Your task to perform on an android device: change keyboard looks Image 0: 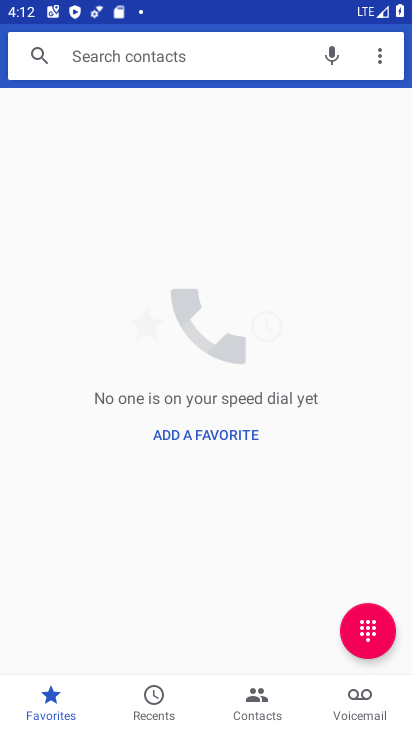
Step 0: press home button
Your task to perform on an android device: change keyboard looks Image 1: 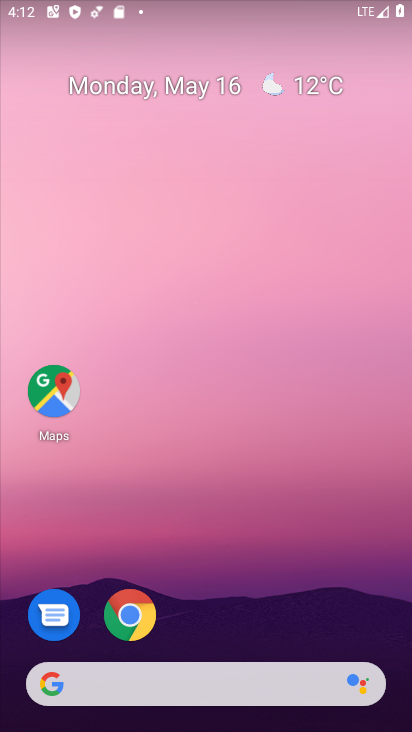
Step 1: drag from (188, 687) to (187, 340)
Your task to perform on an android device: change keyboard looks Image 2: 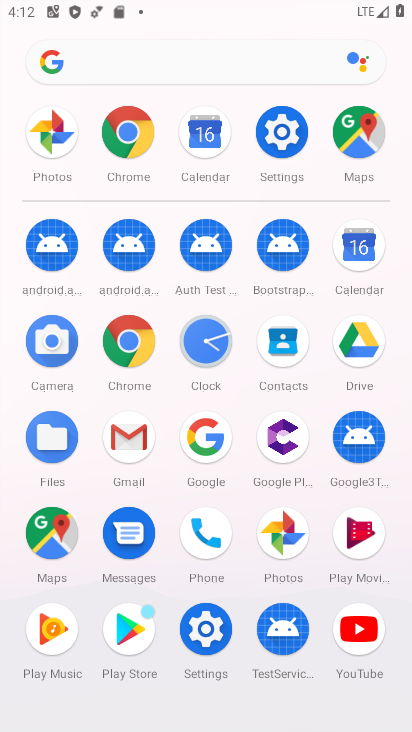
Step 2: click (293, 132)
Your task to perform on an android device: change keyboard looks Image 3: 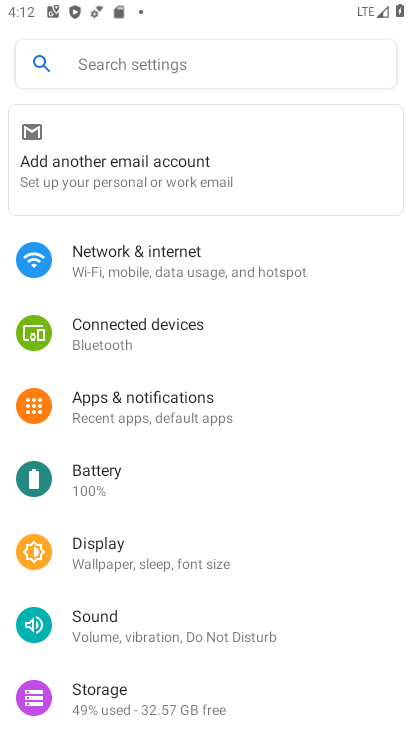
Step 3: drag from (129, 644) to (115, 326)
Your task to perform on an android device: change keyboard looks Image 4: 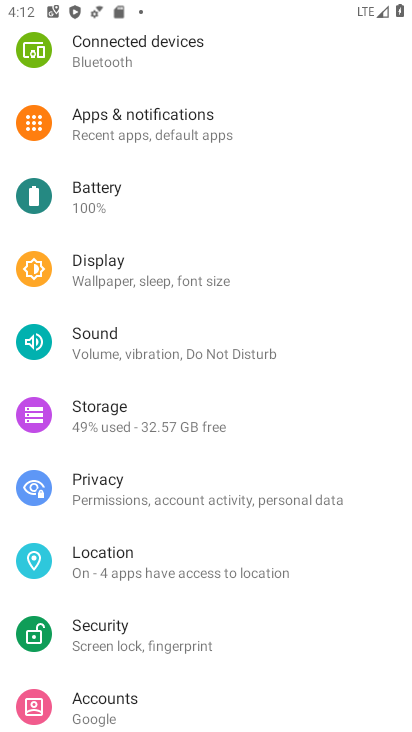
Step 4: drag from (151, 635) to (148, 269)
Your task to perform on an android device: change keyboard looks Image 5: 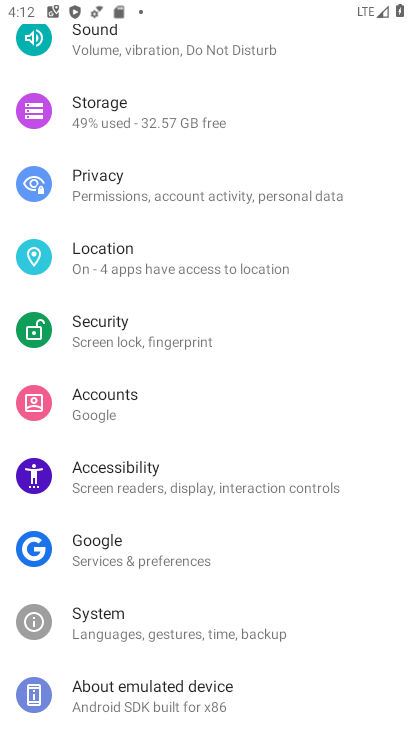
Step 5: drag from (183, 233) to (196, 619)
Your task to perform on an android device: change keyboard looks Image 6: 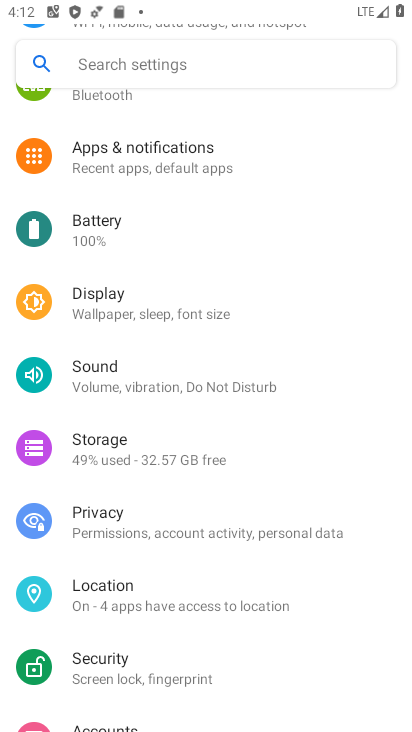
Step 6: drag from (189, 210) to (189, 559)
Your task to perform on an android device: change keyboard looks Image 7: 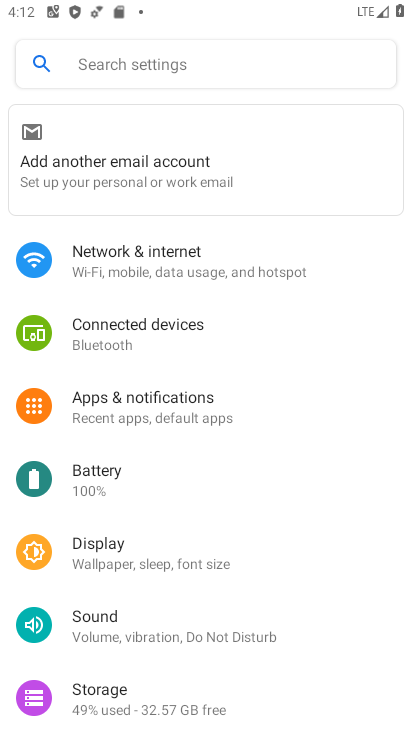
Step 7: drag from (118, 684) to (121, 270)
Your task to perform on an android device: change keyboard looks Image 8: 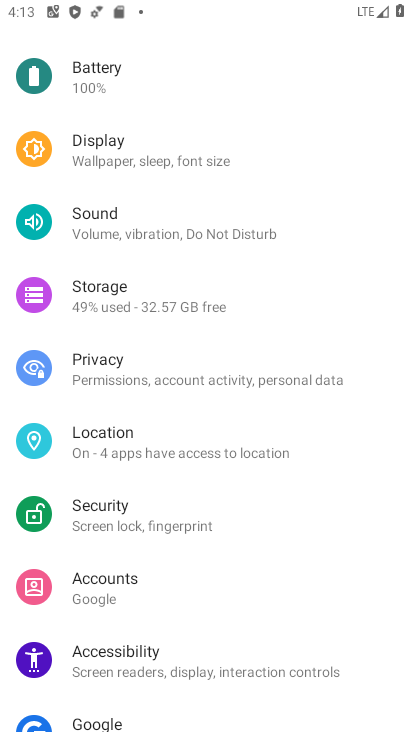
Step 8: drag from (133, 648) to (133, 269)
Your task to perform on an android device: change keyboard looks Image 9: 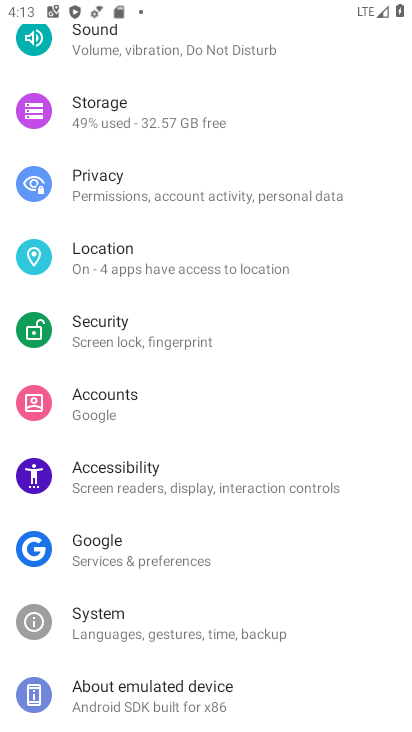
Step 9: drag from (186, 665) to (116, 141)
Your task to perform on an android device: change keyboard looks Image 10: 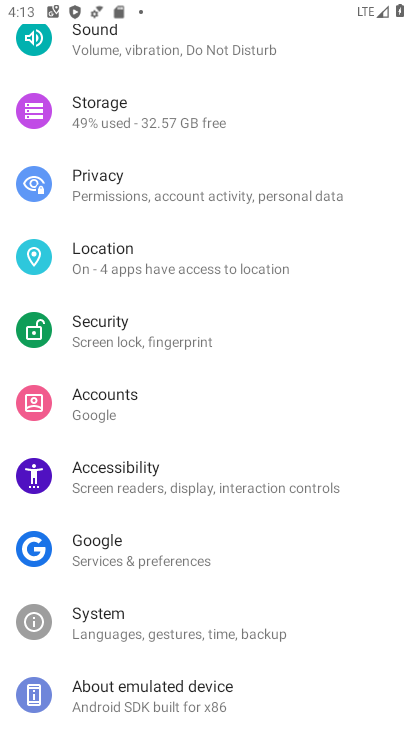
Step 10: click (103, 614)
Your task to perform on an android device: change keyboard looks Image 11: 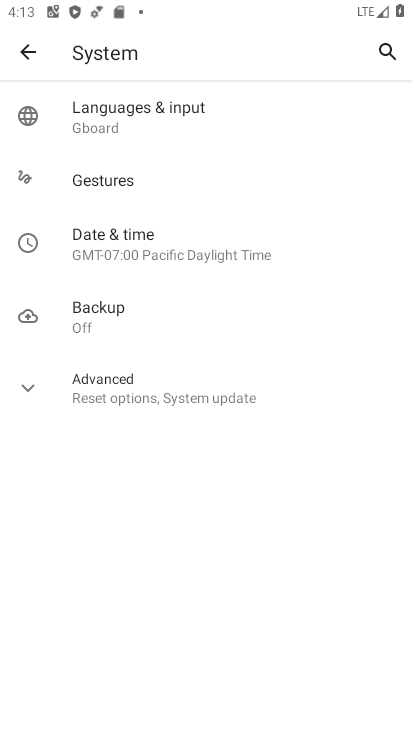
Step 11: click (104, 117)
Your task to perform on an android device: change keyboard looks Image 12: 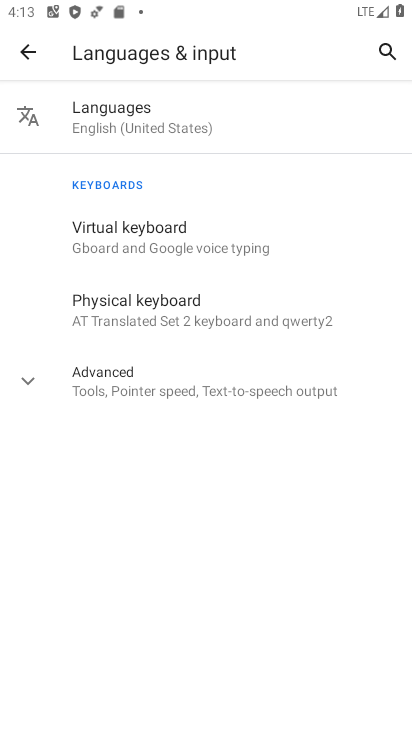
Step 12: click (113, 110)
Your task to perform on an android device: change keyboard looks Image 13: 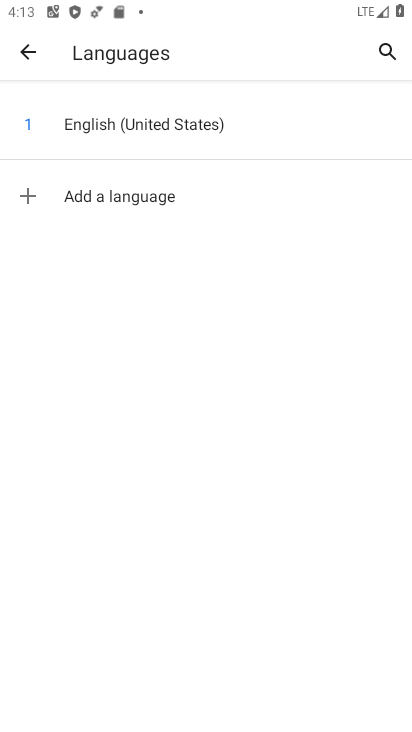
Step 13: click (32, 47)
Your task to perform on an android device: change keyboard looks Image 14: 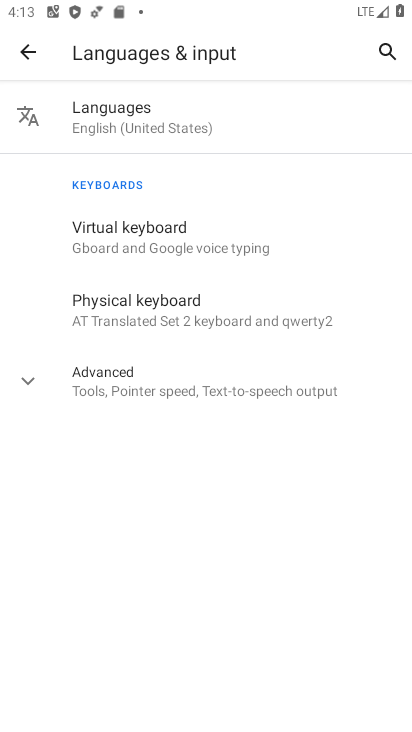
Step 14: click (140, 234)
Your task to perform on an android device: change keyboard looks Image 15: 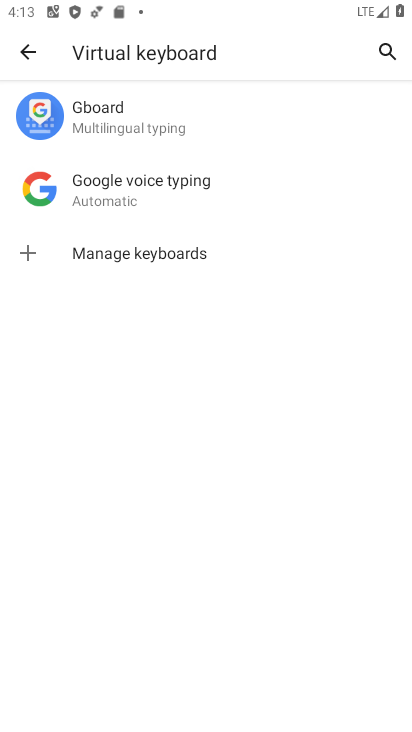
Step 15: click (102, 116)
Your task to perform on an android device: change keyboard looks Image 16: 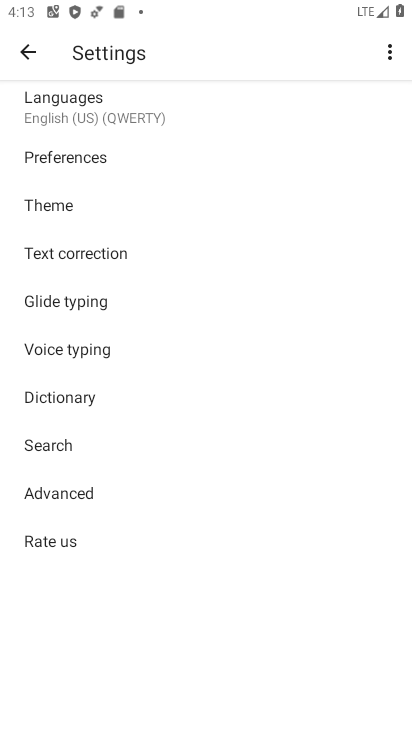
Step 16: click (67, 208)
Your task to perform on an android device: change keyboard looks Image 17: 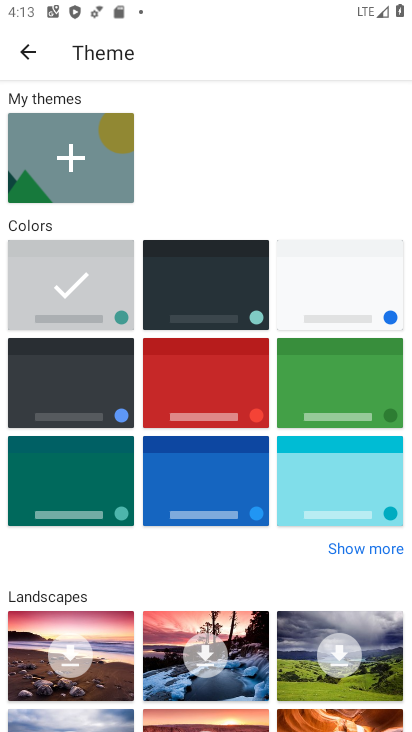
Step 17: click (215, 289)
Your task to perform on an android device: change keyboard looks Image 18: 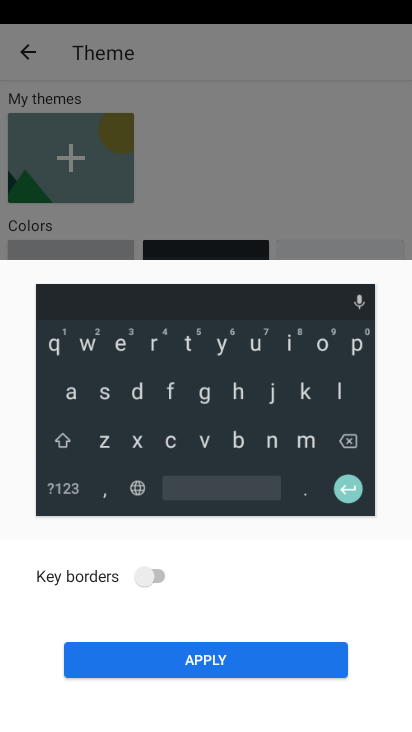
Step 18: click (162, 570)
Your task to perform on an android device: change keyboard looks Image 19: 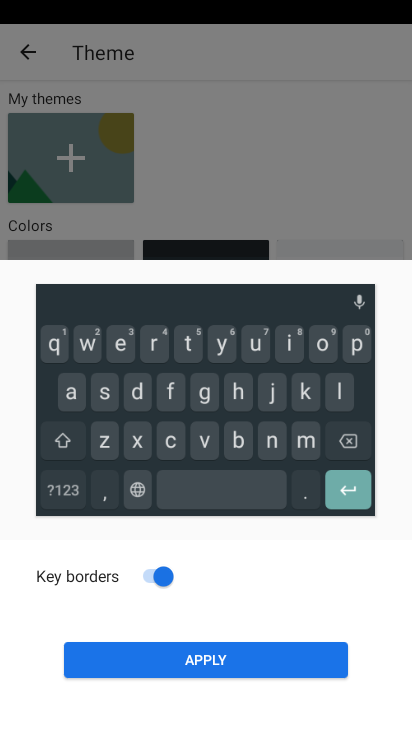
Step 19: click (195, 665)
Your task to perform on an android device: change keyboard looks Image 20: 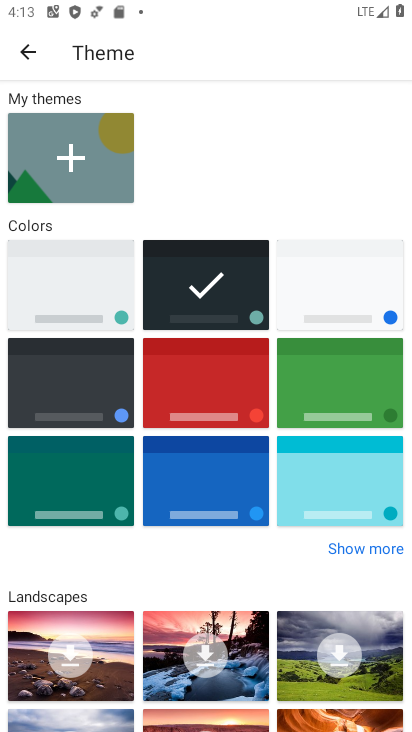
Step 20: task complete